Your task to perform on an android device: Search for handmade jewelry on Etsy. Image 0: 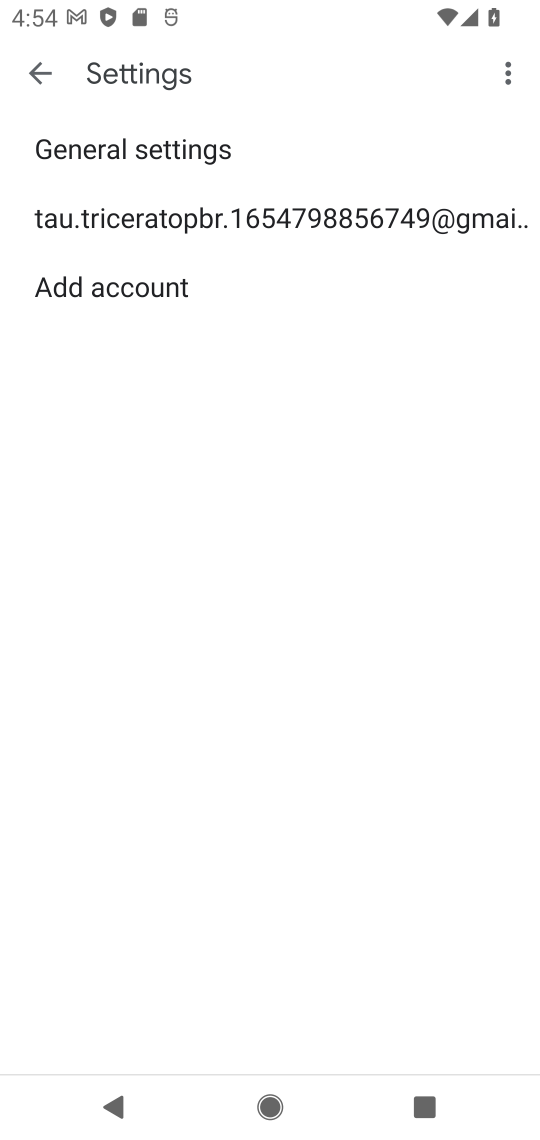
Step 0: press home button
Your task to perform on an android device: Search for handmade jewelry on Etsy. Image 1: 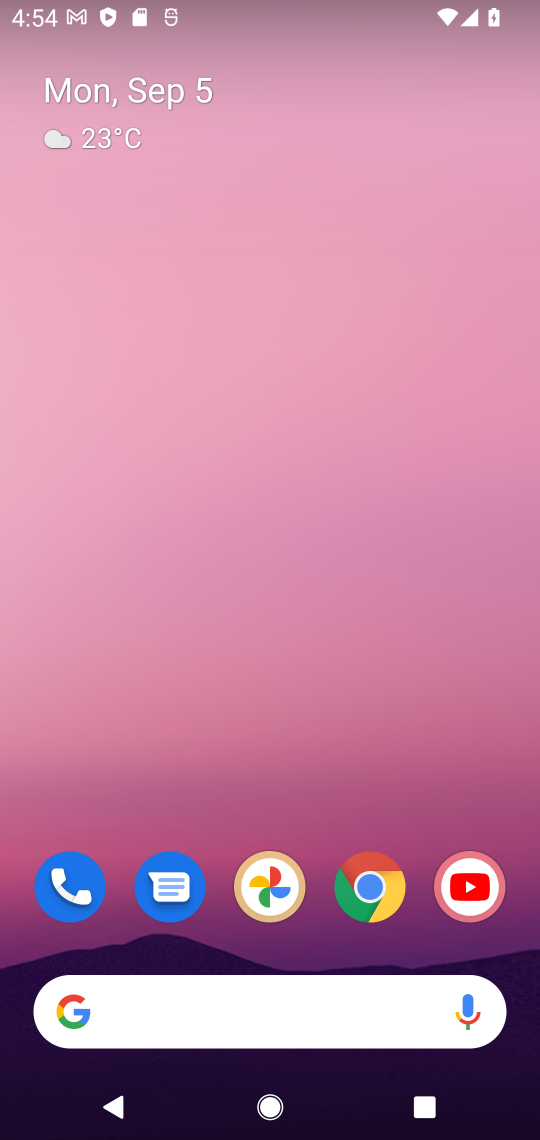
Step 1: drag from (261, 916) to (248, 341)
Your task to perform on an android device: Search for handmade jewelry on Etsy. Image 2: 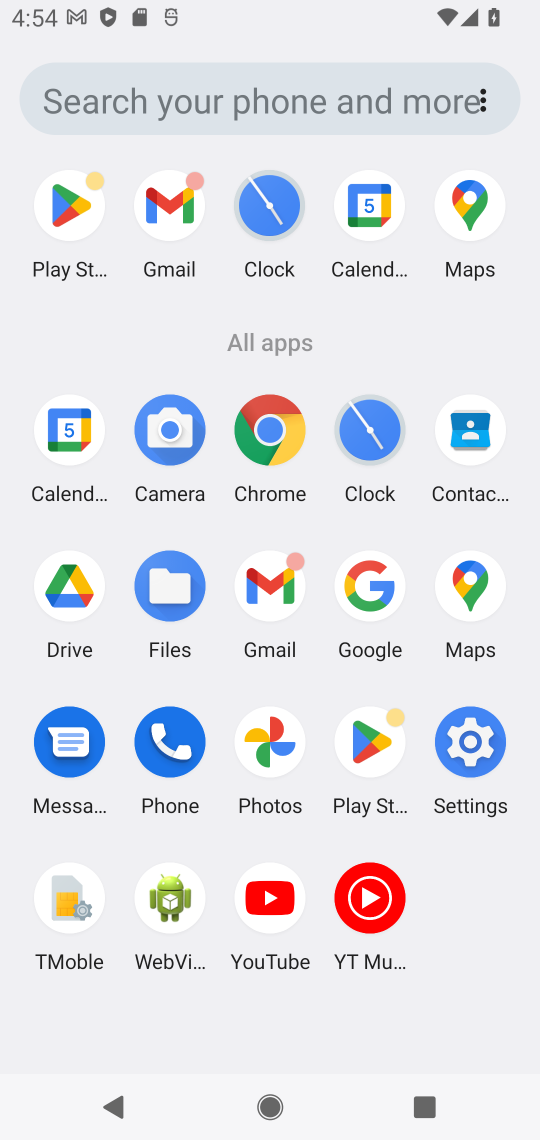
Step 2: click (368, 587)
Your task to perform on an android device: Search for handmade jewelry on Etsy. Image 3: 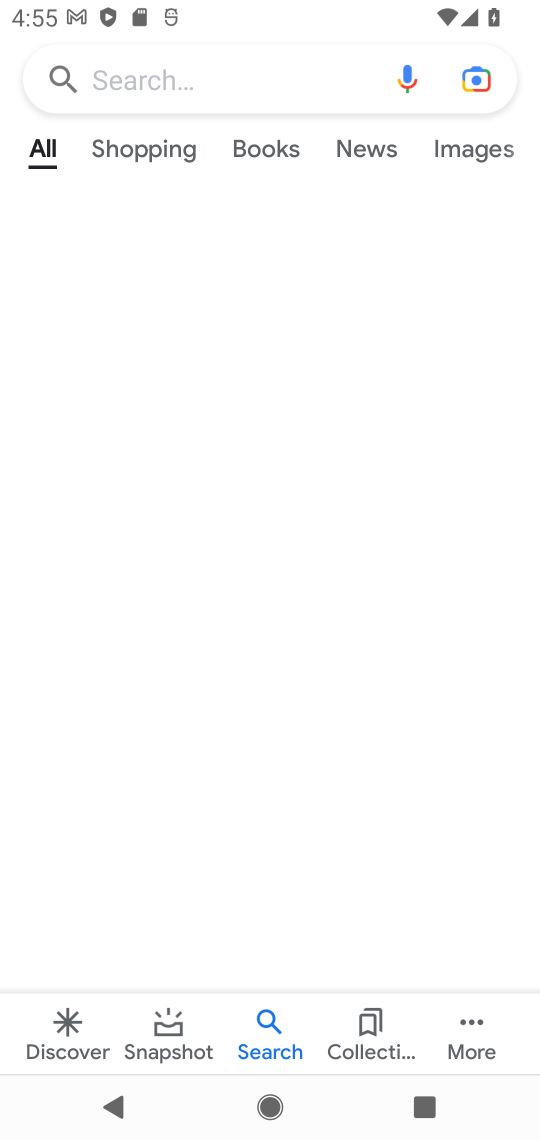
Step 3: click (105, 83)
Your task to perform on an android device: Search for handmade jewelry on Etsy. Image 4: 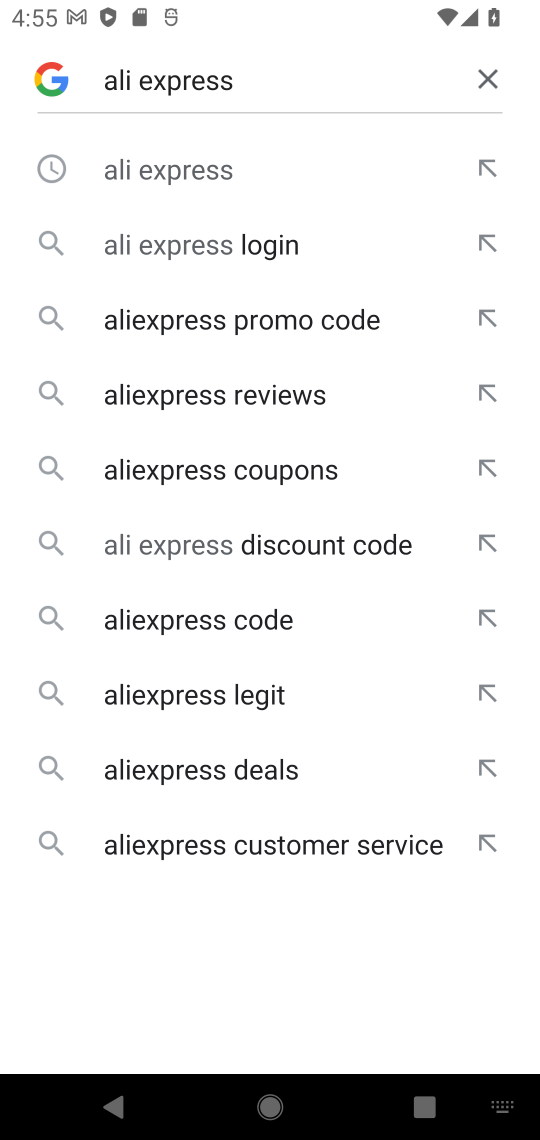
Step 4: click (485, 79)
Your task to perform on an android device: Search for handmade jewelry on Etsy. Image 5: 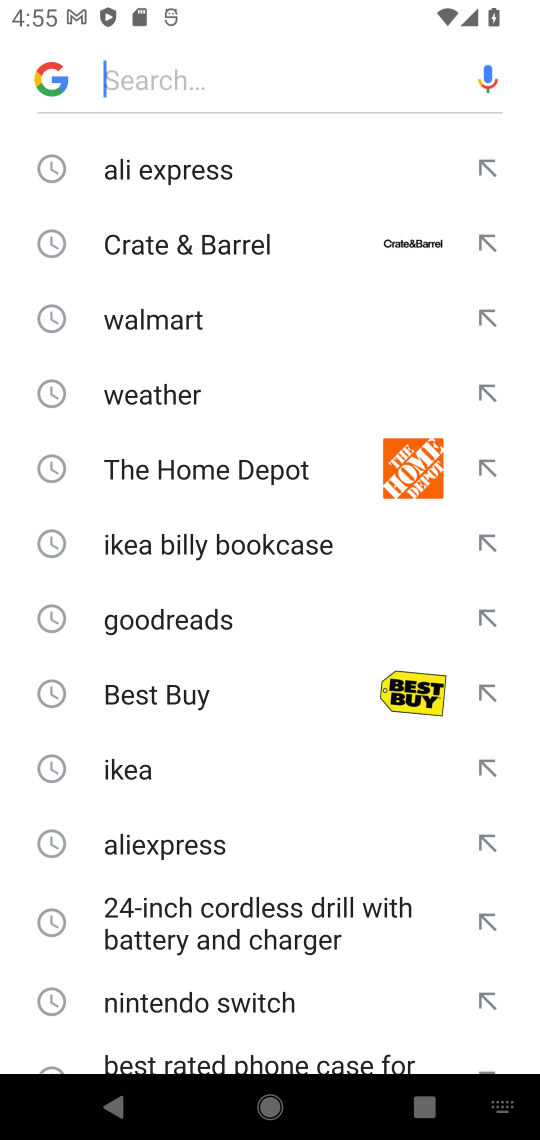
Step 5: type "Etsy"
Your task to perform on an android device: Search for handmade jewelry on Etsy. Image 6: 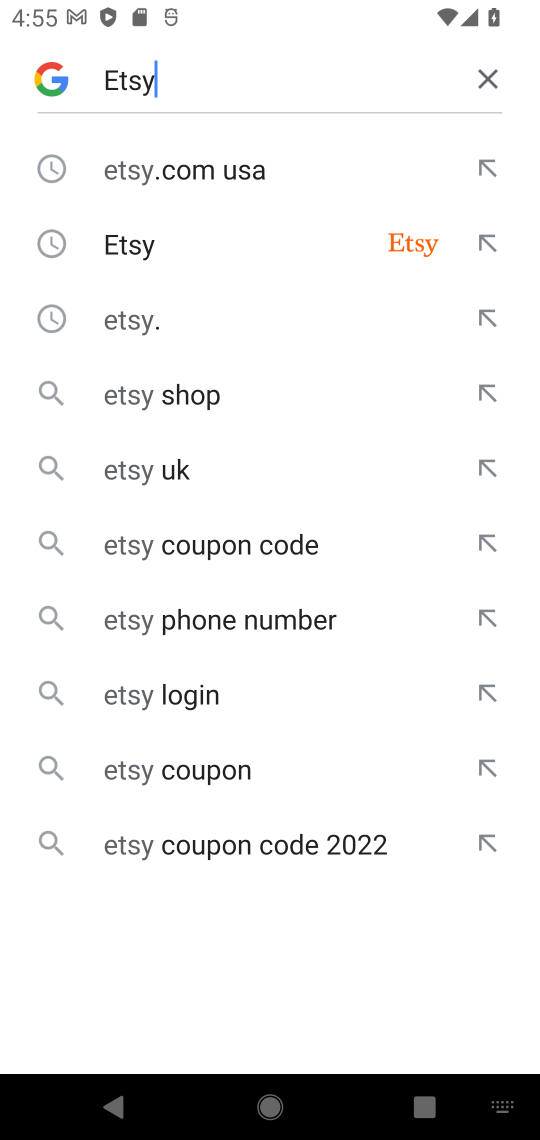
Step 6: click (143, 241)
Your task to perform on an android device: Search for handmade jewelry on Etsy. Image 7: 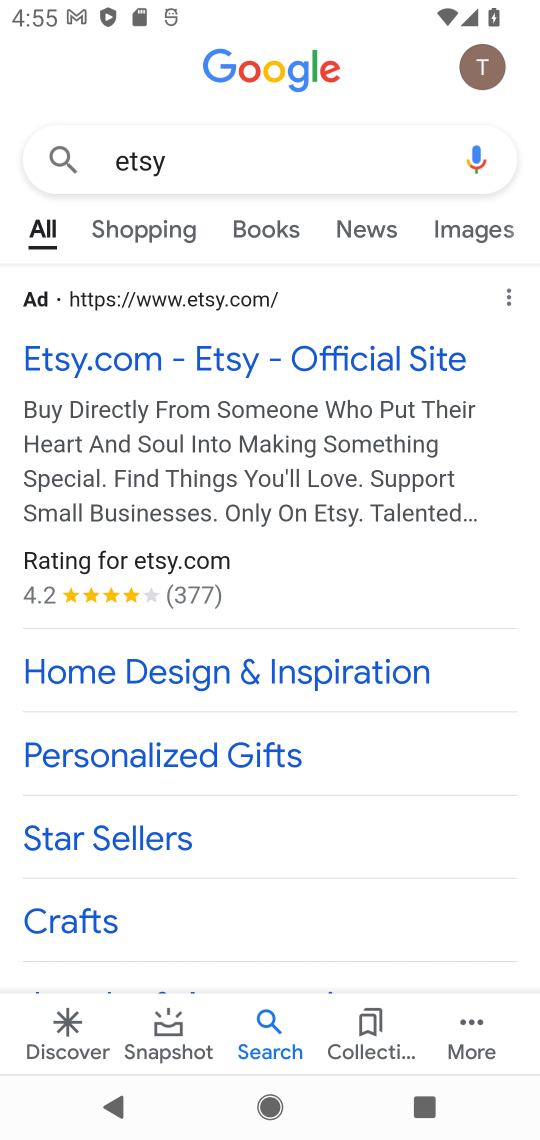
Step 7: click (100, 355)
Your task to perform on an android device: Search for handmade jewelry on Etsy. Image 8: 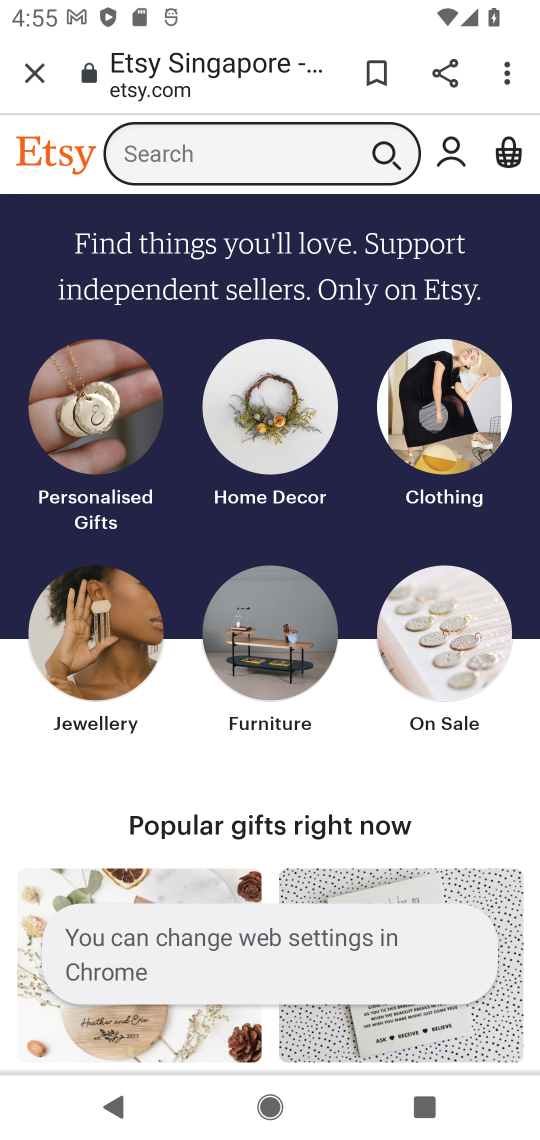
Step 8: click (266, 153)
Your task to perform on an android device: Search for handmade jewelry on Etsy. Image 9: 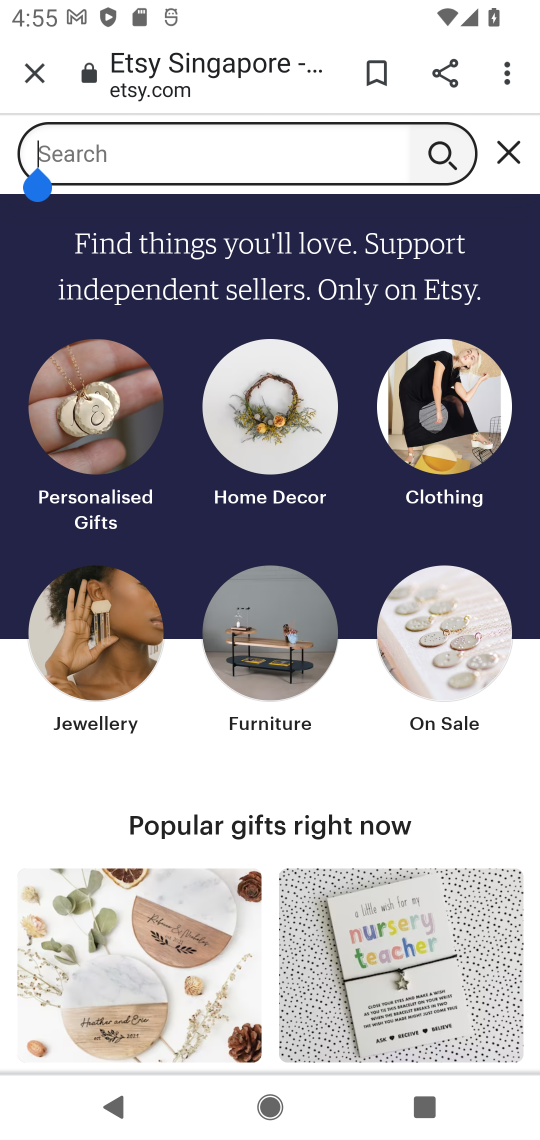
Step 9: type "handmade jewelry"
Your task to perform on an android device: Search for handmade jewelry on Etsy. Image 10: 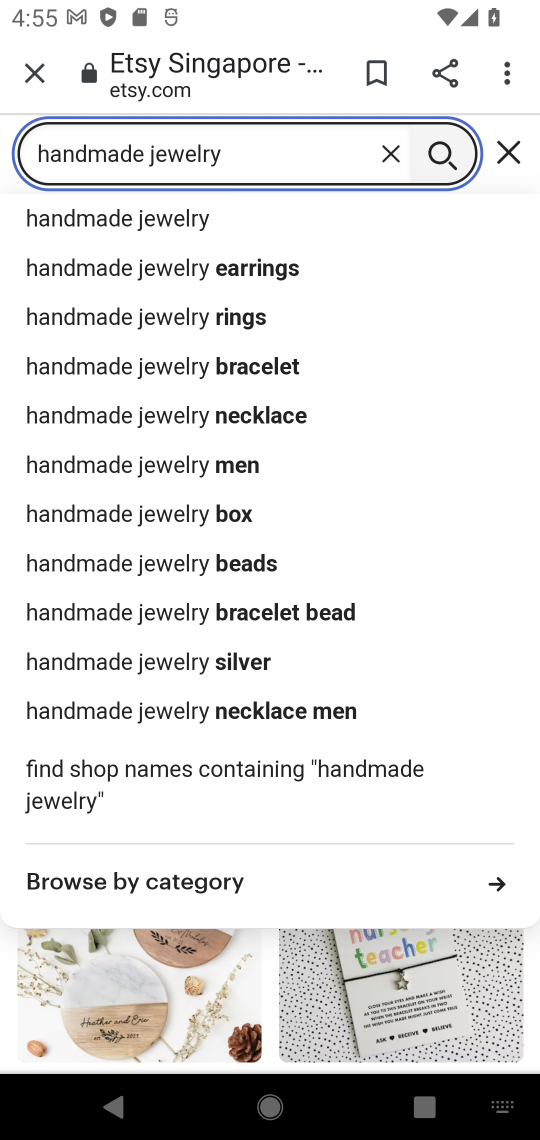
Step 10: click (70, 215)
Your task to perform on an android device: Search for handmade jewelry on Etsy. Image 11: 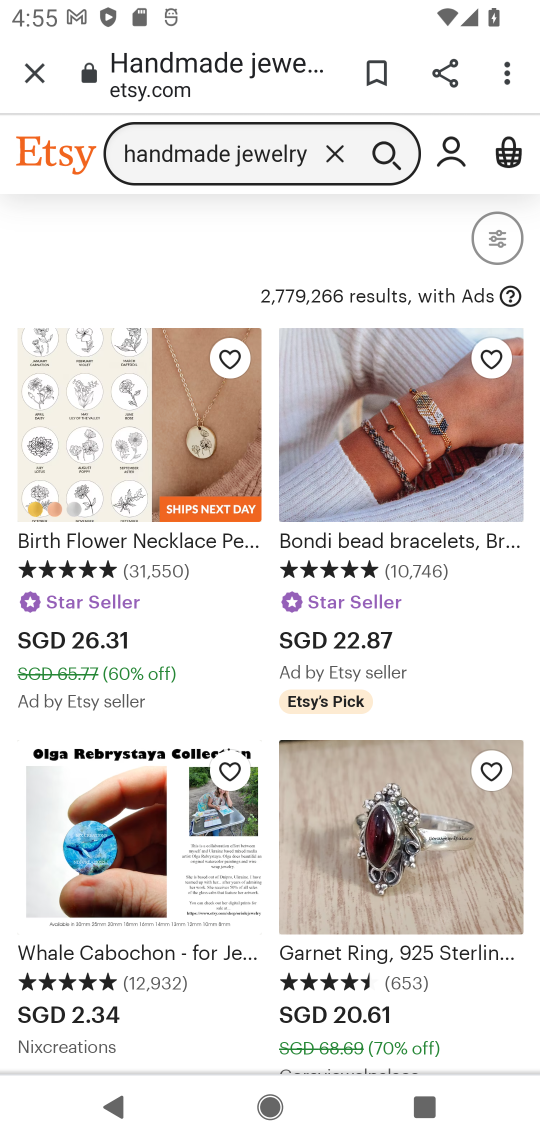
Step 11: drag from (300, 979) to (304, 572)
Your task to perform on an android device: Search for handmade jewelry on Etsy. Image 12: 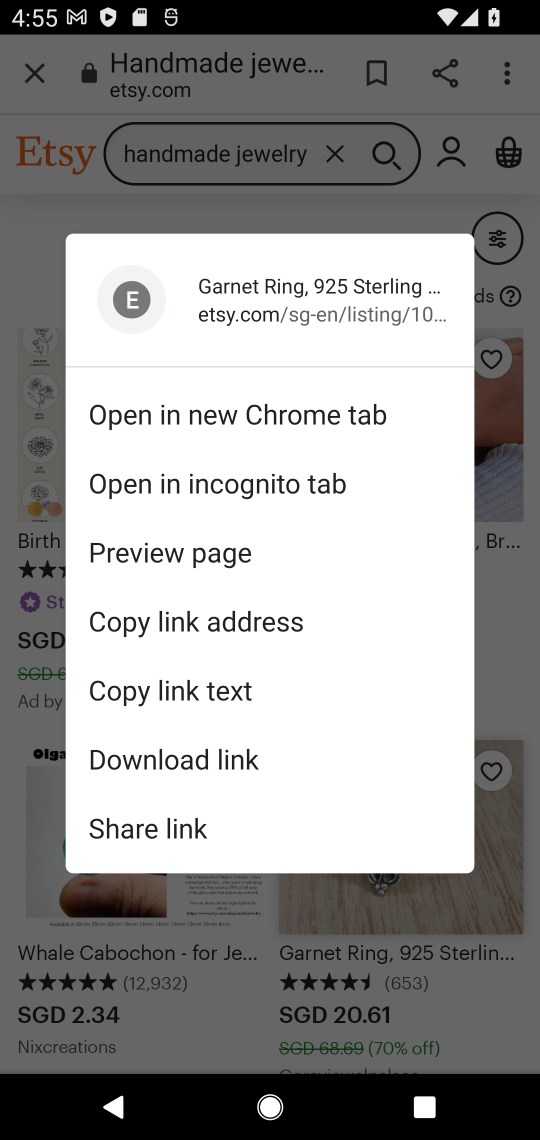
Step 12: click (38, 281)
Your task to perform on an android device: Search for handmade jewelry on Etsy. Image 13: 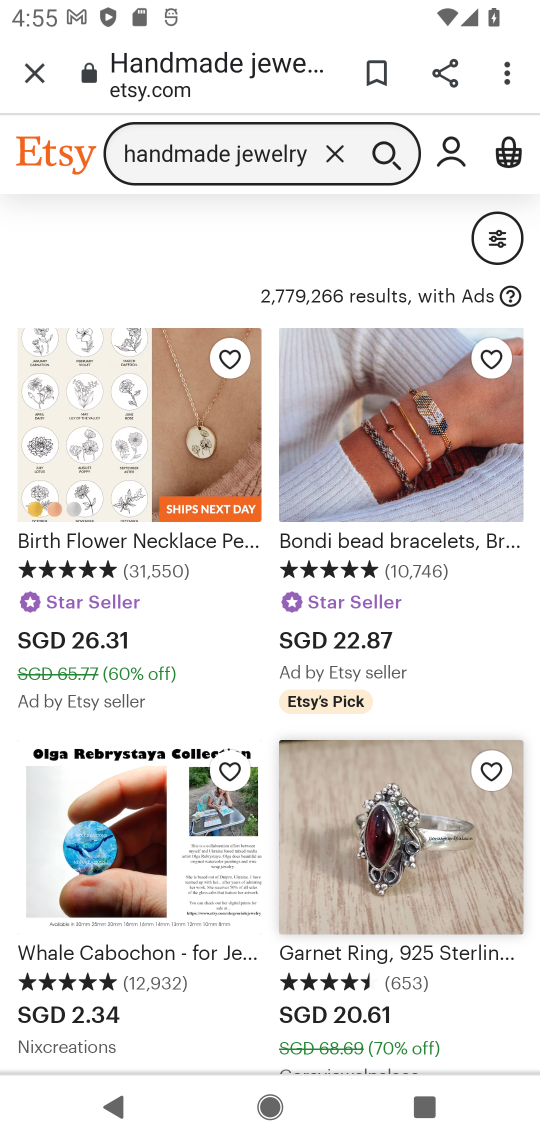
Step 13: task complete